Your task to perform on an android device: Open CNN.com Image 0: 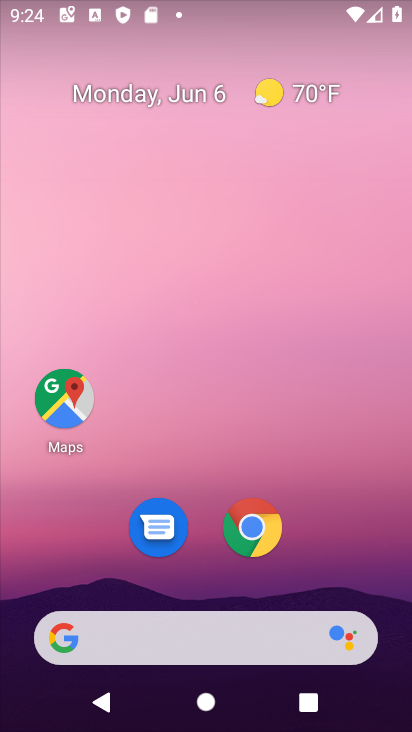
Step 0: drag from (191, 527) to (191, 377)
Your task to perform on an android device: Open CNN.com Image 1: 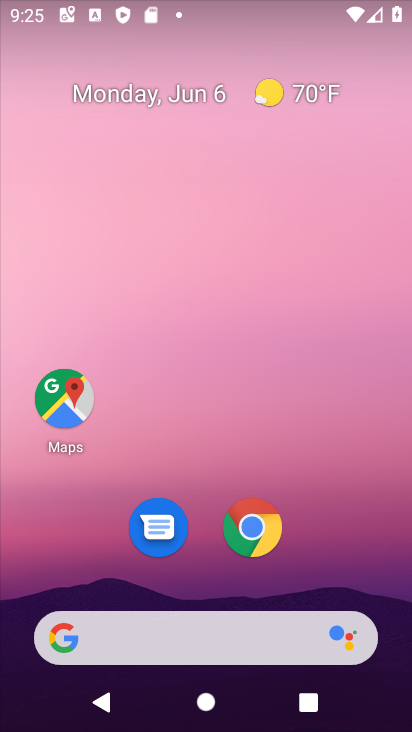
Step 1: drag from (197, 626) to (234, 241)
Your task to perform on an android device: Open CNN.com Image 2: 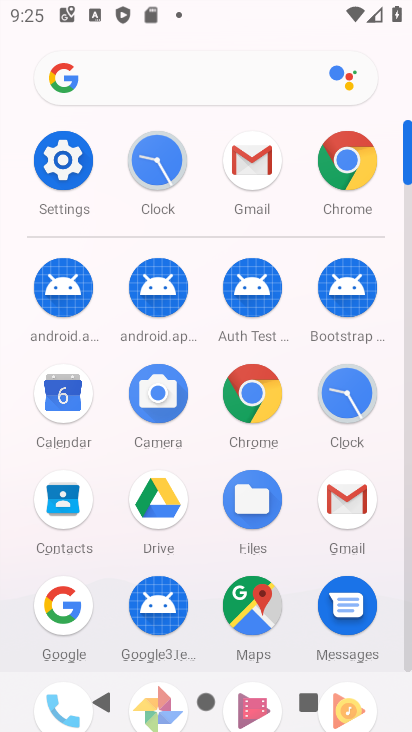
Step 2: click (363, 170)
Your task to perform on an android device: Open CNN.com Image 3: 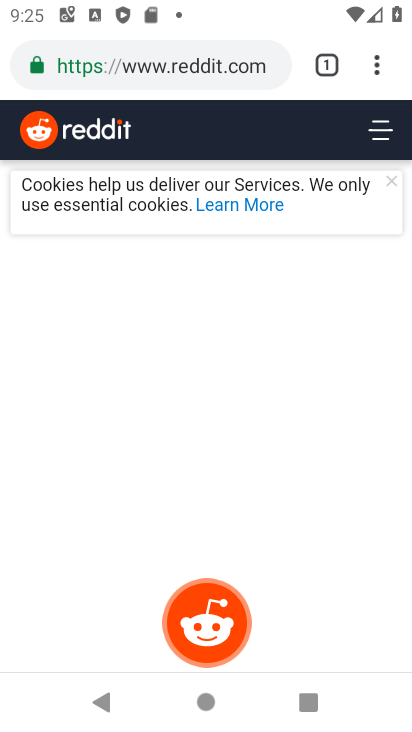
Step 3: click (217, 63)
Your task to perform on an android device: Open CNN.com Image 4: 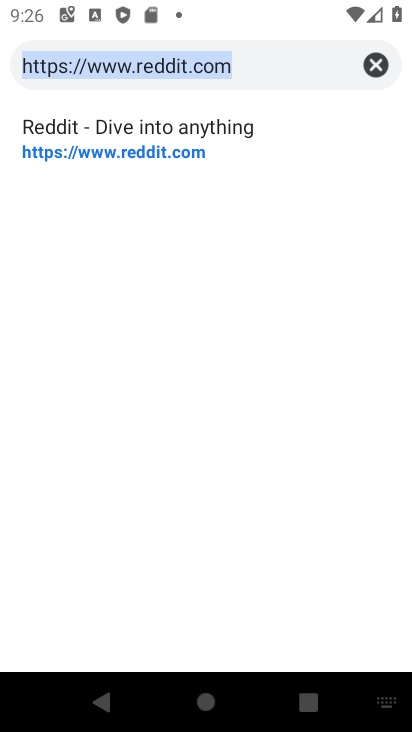
Step 4: type "cnn"
Your task to perform on an android device: Open CNN.com Image 5: 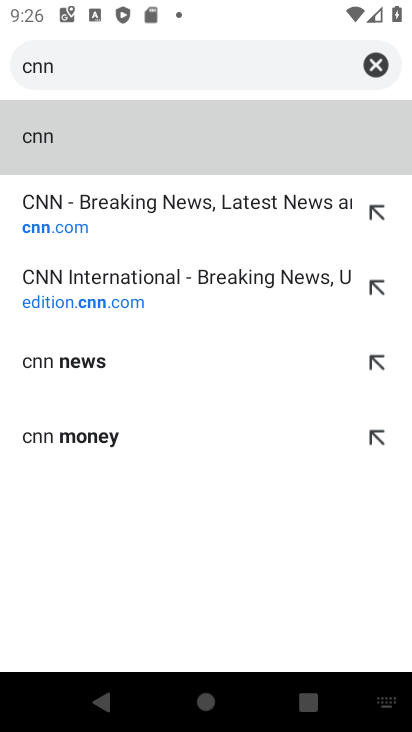
Step 5: click (230, 226)
Your task to perform on an android device: Open CNN.com Image 6: 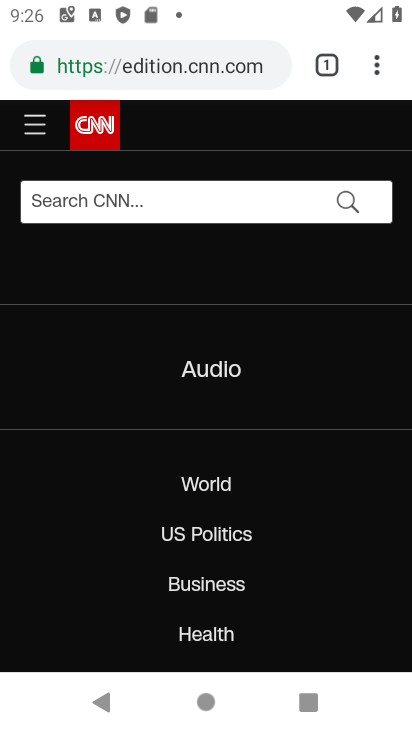
Step 6: task complete